Your task to perform on an android device: turn off location history Image 0: 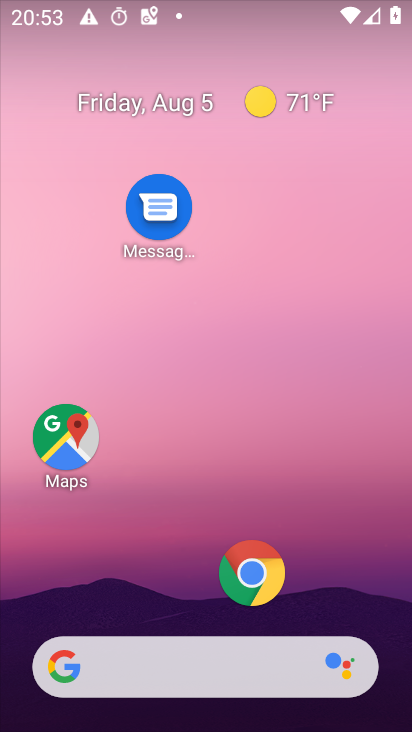
Step 0: drag from (200, 607) to (278, 64)
Your task to perform on an android device: turn off location history Image 1: 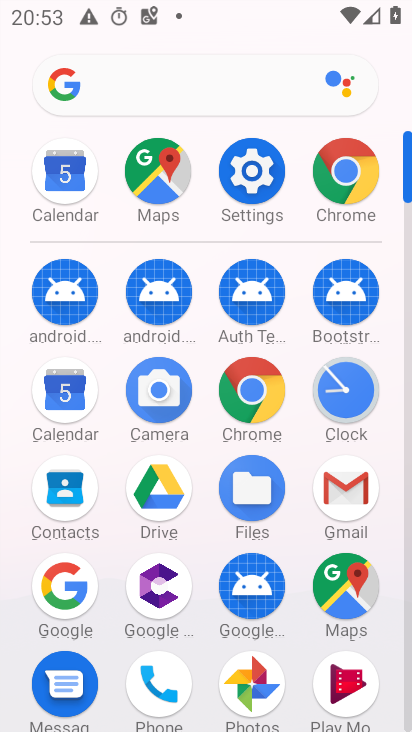
Step 1: click (249, 168)
Your task to perform on an android device: turn off location history Image 2: 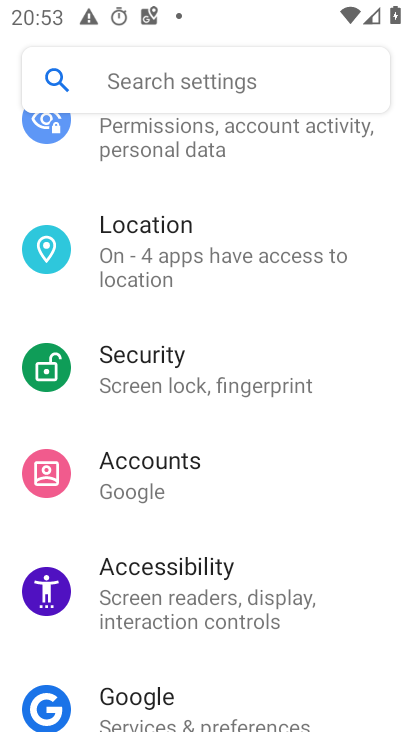
Step 2: click (221, 230)
Your task to perform on an android device: turn off location history Image 3: 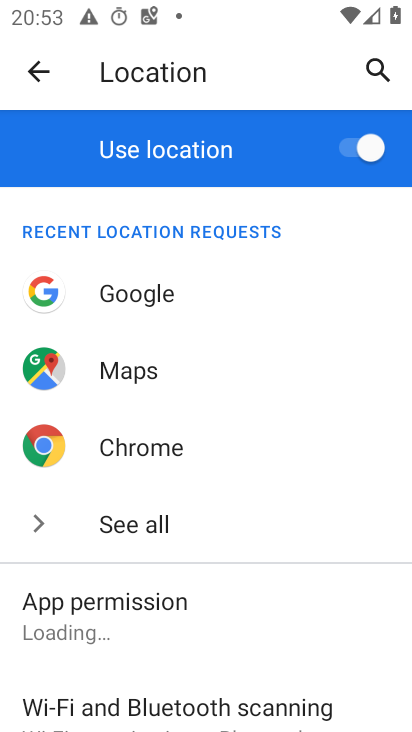
Step 3: drag from (206, 664) to (212, 288)
Your task to perform on an android device: turn off location history Image 4: 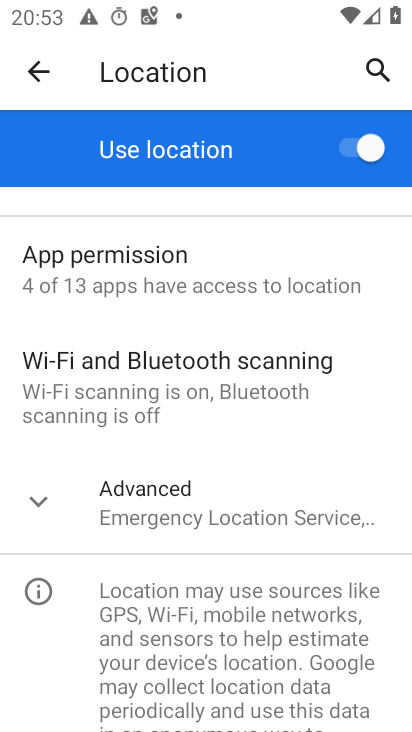
Step 4: click (38, 494)
Your task to perform on an android device: turn off location history Image 5: 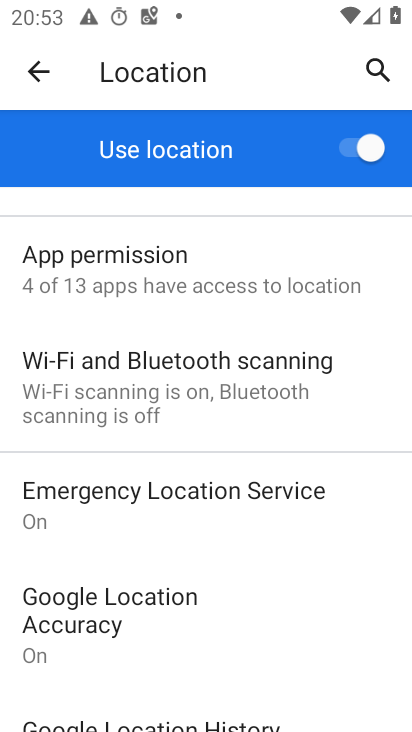
Step 5: drag from (184, 644) to (201, 238)
Your task to perform on an android device: turn off location history Image 6: 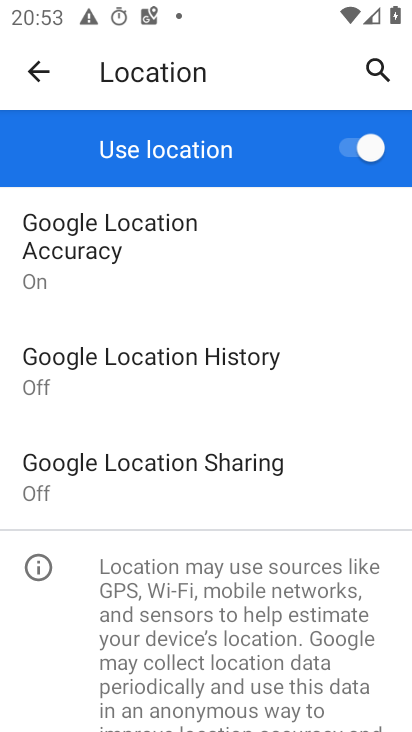
Step 6: click (97, 368)
Your task to perform on an android device: turn off location history Image 7: 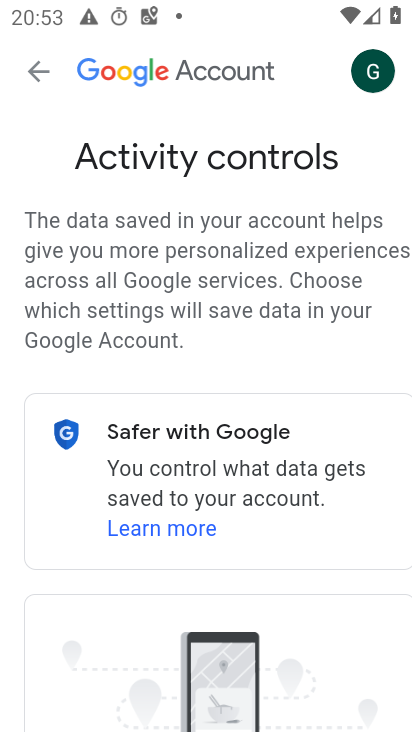
Step 7: task complete